Your task to perform on an android device: turn notification dots off Image 0: 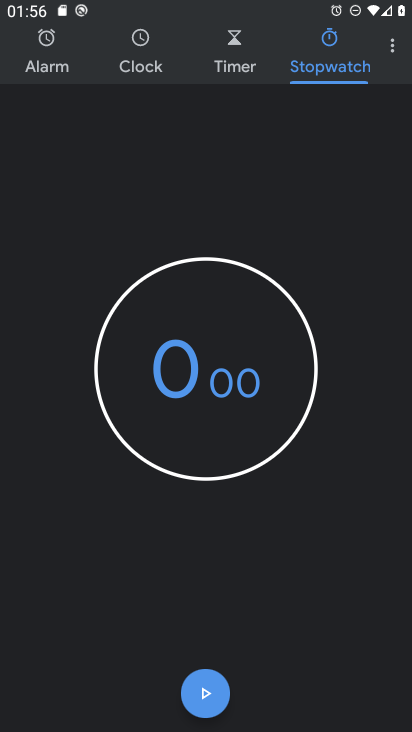
Step 0: press home button
Your task to perform on an android device: turn notification dots off Image 1: 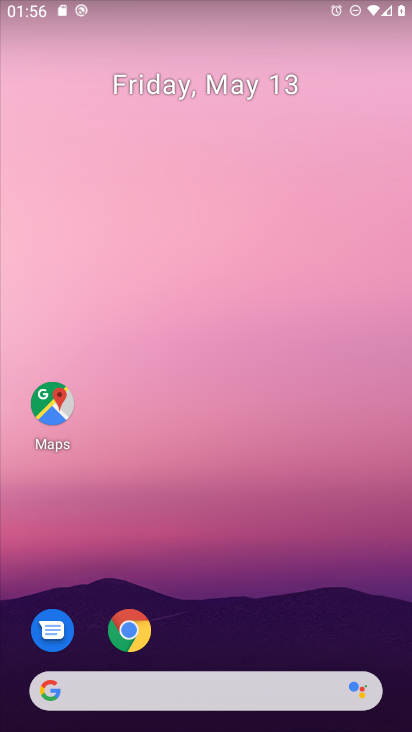
Step 1: drag from (278, 692) to (275, 297)
Your task to perform on an android device: turn notification dots off Image 2: 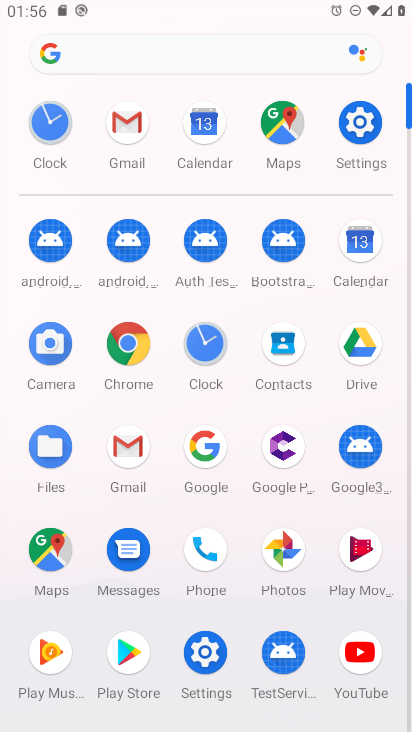
Step 2: click (349, 141)
Your task to perform on an android device: turn notification dots off Image 3: 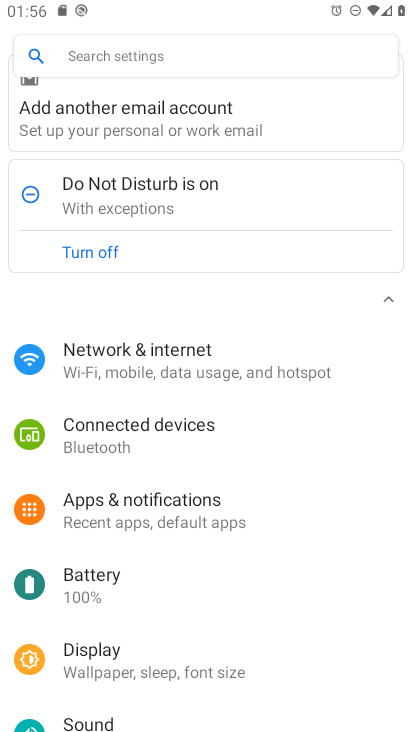
Step 3: click (182, 51)
Your task to perform on an android device: turn notification dots off Image 4: 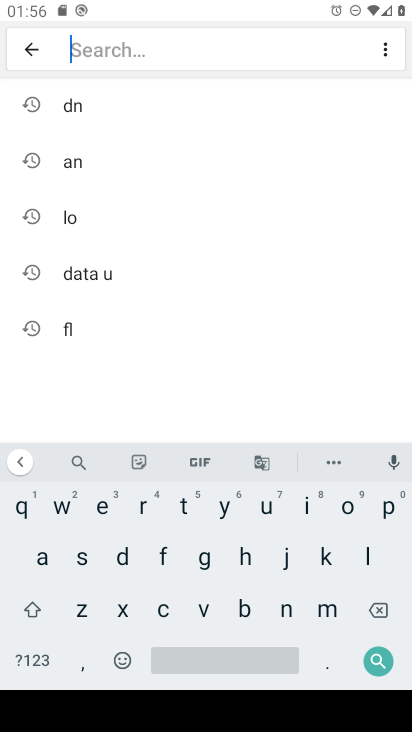
Step 4: click (118, 549)
Your task to perform on an android device: turn notification dots off Image 5: 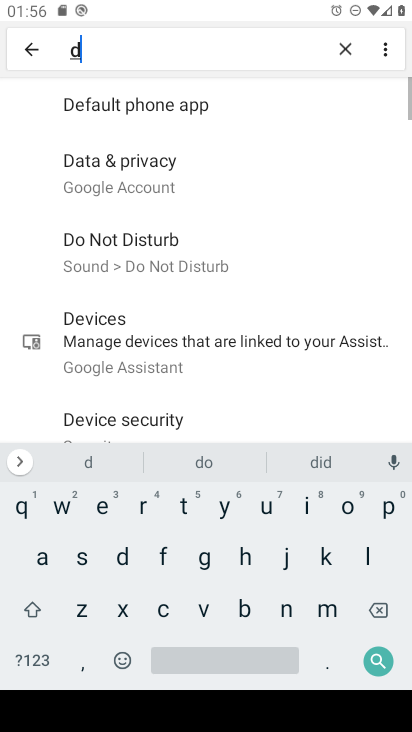
Step 5: click (346, 507)
Your task to perform on an android device: turn notification dots off Image 6: 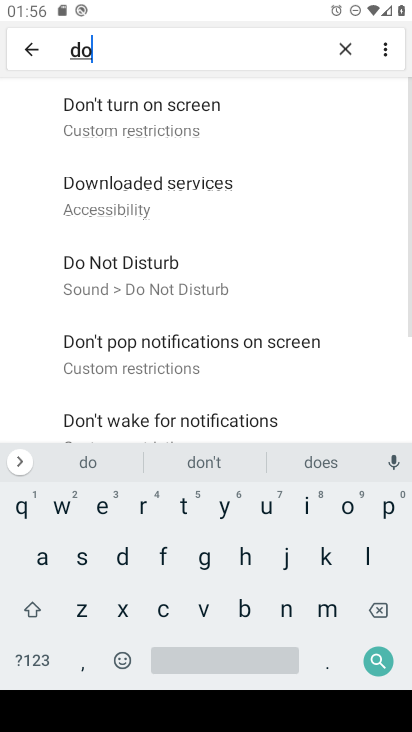
Step 6: click (187, 507)
Your task to perform on an android device: turn notification dots off Image 7: 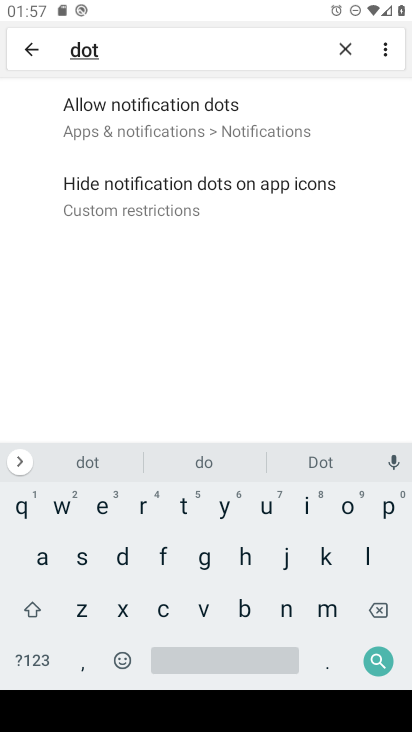
Step 7: click (173, 119)
Your task to perform on an android device: turn notification dots off Image 8: 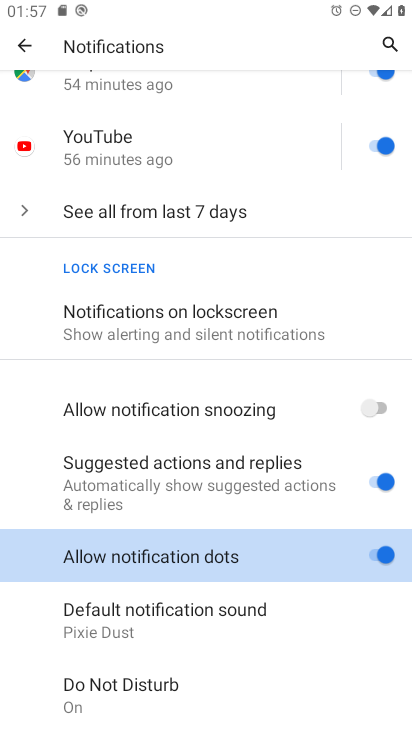
Step 8: click (368, 552)
Your task to perform on an android device: turn notification dots off Image 9: 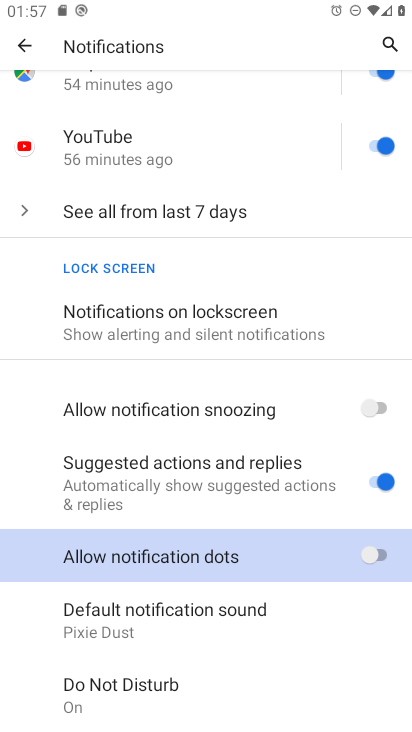
Step 9: task complete